Your task to perform on an android device: toggle translation in the chrome app Image 0: 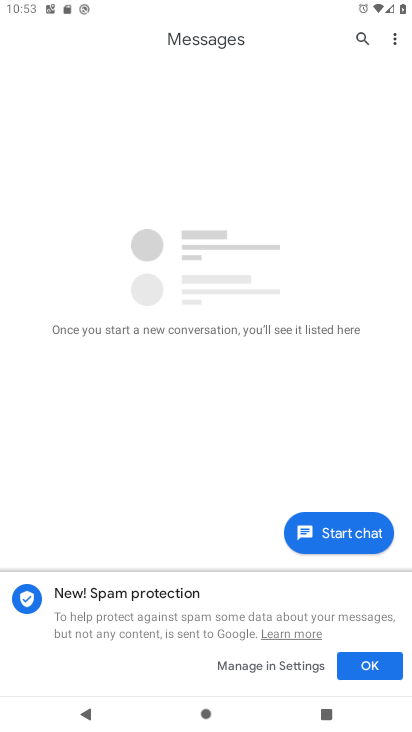
Step 0: press home button
Your task to perform on an android device: toggle translation in the chrome app Image 1: 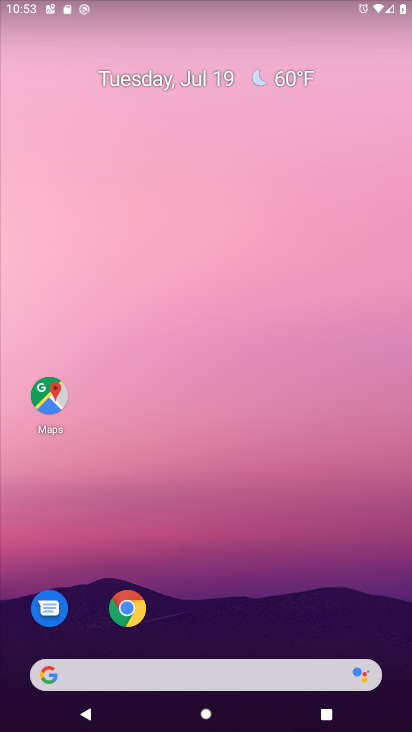
Step 1: drag from (228, 653) to (158, 69)
Your task to perform on an android device: toggle translation in the chrome app Image 2: 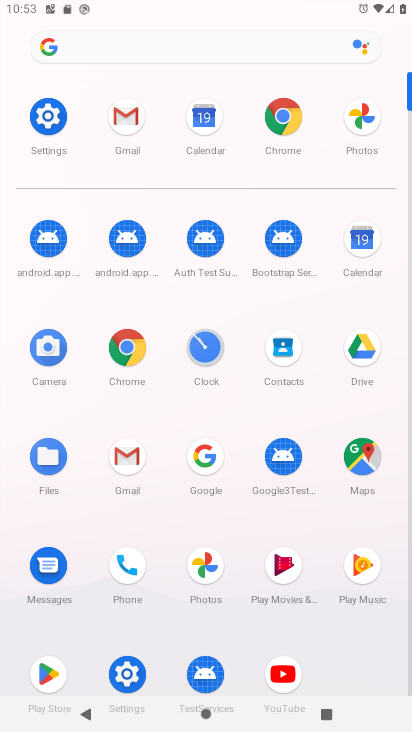
Step 2: click (288, 122)
Your task to perform on an android device: toggle translation in the chrome app Image 3: 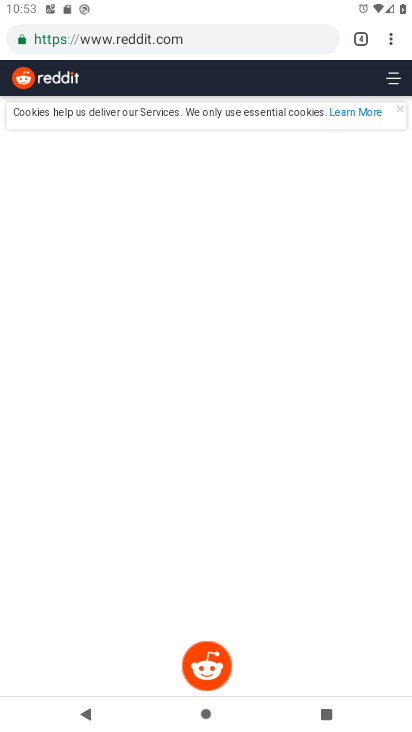
Step 3: click (387, 43)
Your task to perform on an android device: toggle translation in the chrome app Image 4: 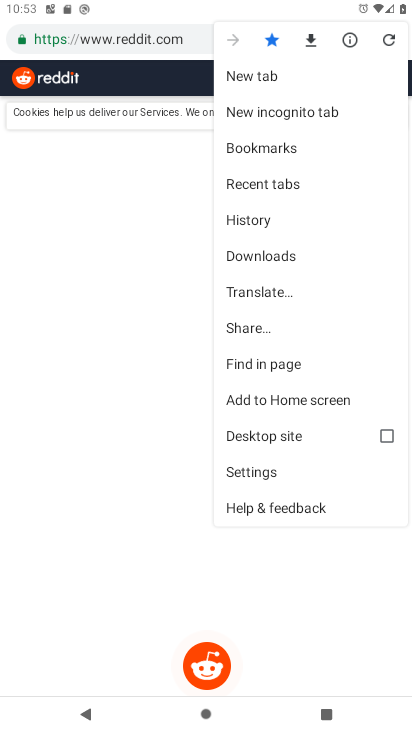
Step 4: click (246, 470)
Your task to perform on an android device: toggle translation in the chrome app Image 5: 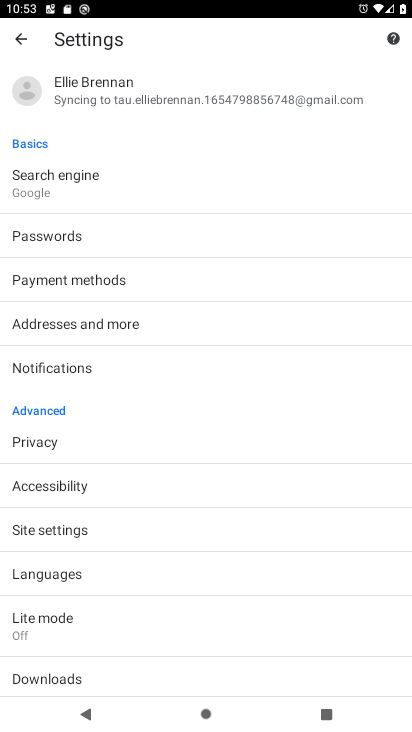
Step 5: click (92, 564)
Your task to perform on an android device: toggle translation in the chrome app Image 6: 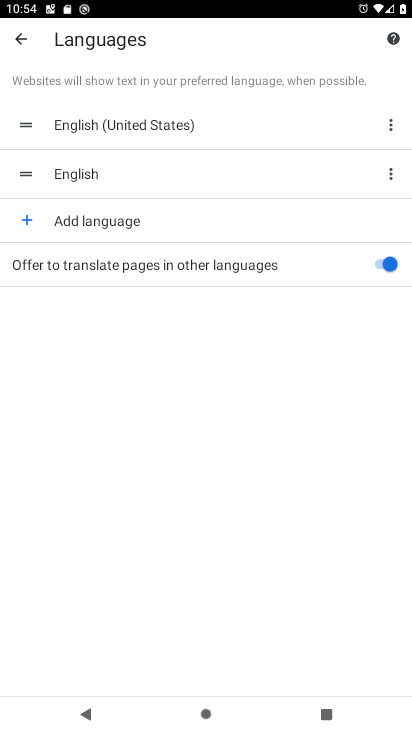
Step 6: click (379, 264)
Your task to perform on an android device: toggle translation in the chrome app Image 7: 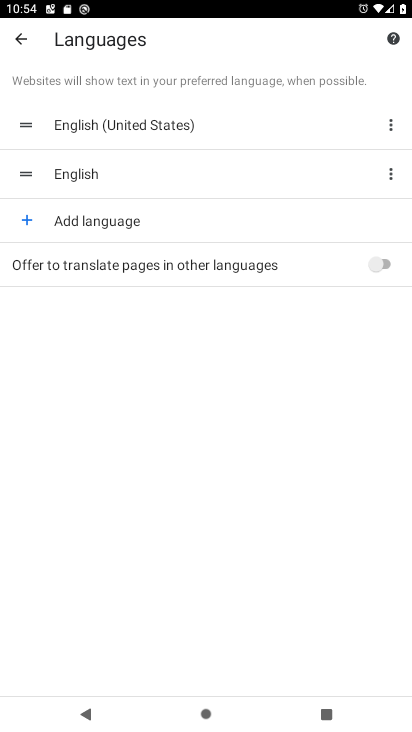
Step 7: task complete